Your task to perform on an android device: Open the Play Movies app and select the watchlist tab. Image 0: 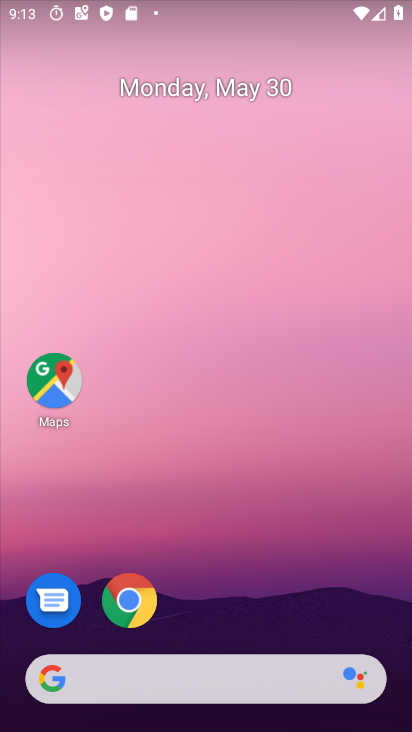
Step 0: drag from (322, 609) to (321, 27)
Your task to perform on an android device: Open the Play Movies app and select the watchlist tab. Image 1: 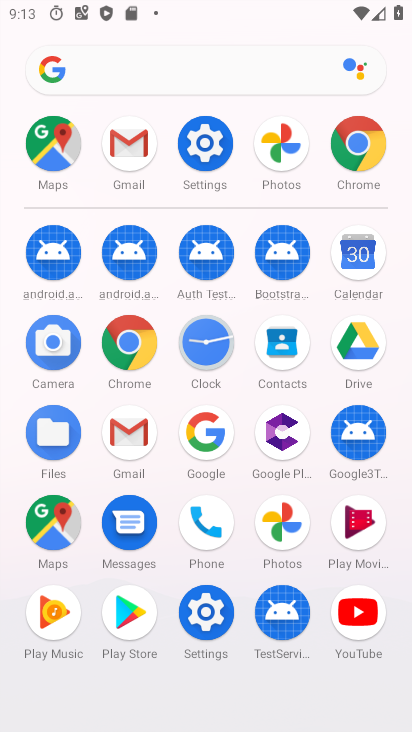
Step 1: drag from (6, 572) to (5, 208)
Your task to perform on an android device: Open the Play Movies app and select the watchlist tab. Image 2: 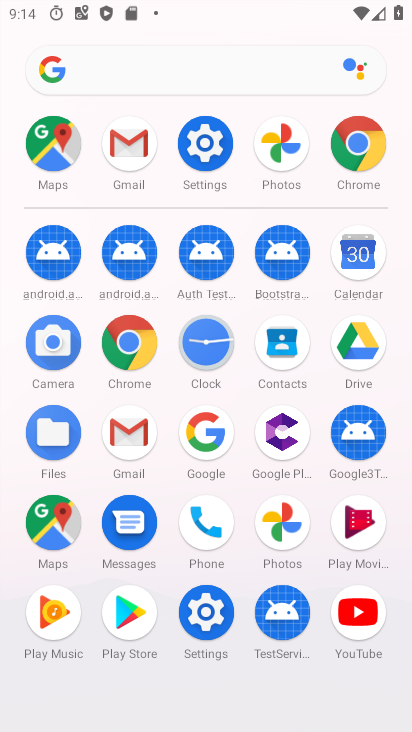
Step 2: click (355, 520)
Your task to perform on an android device: Open the Play Movies app and select the watchlist tab. Image 3: 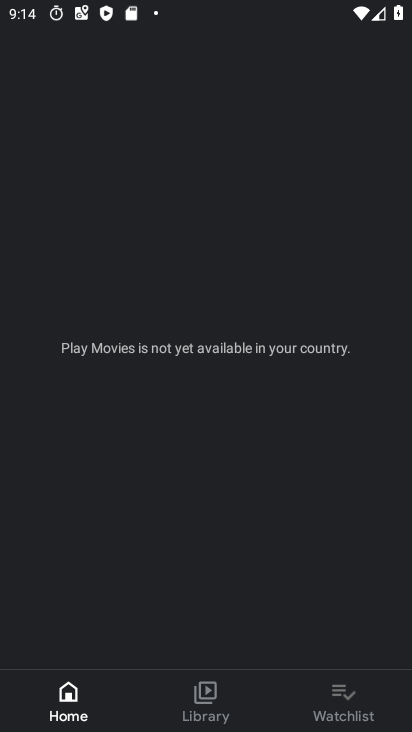
Step 3: click (353, 697)
Your task to perform on an android device: Open the Play Movies app and select the watchlist tab. Image 4: 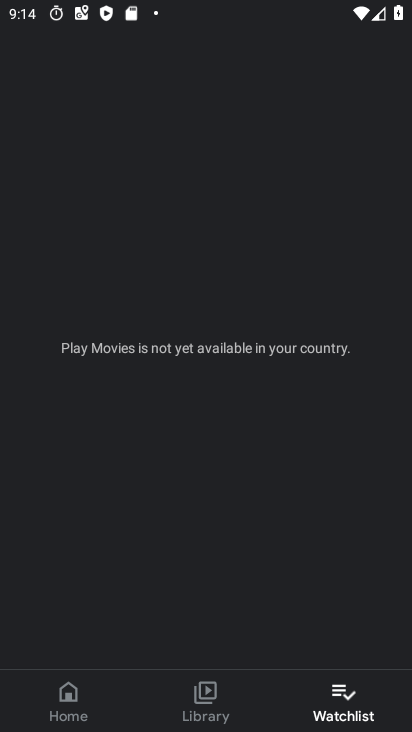
Step 4: task complete